Your task to perform on an android device: Open the map Image 0: 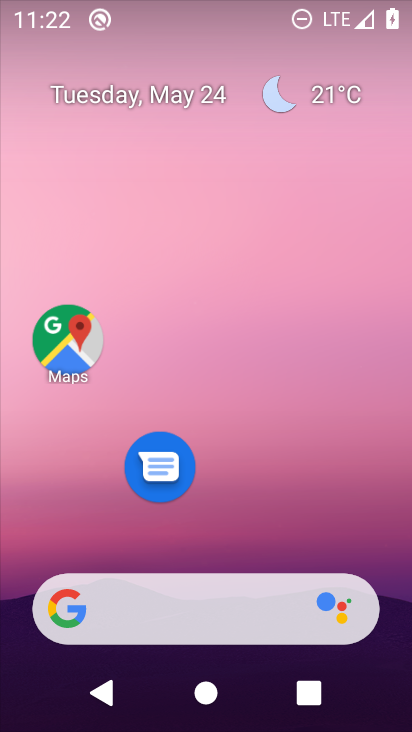
Step 0: drag from (217, 479) to (260, 169)
Your task to perform on an android device: Open the map Image 1: 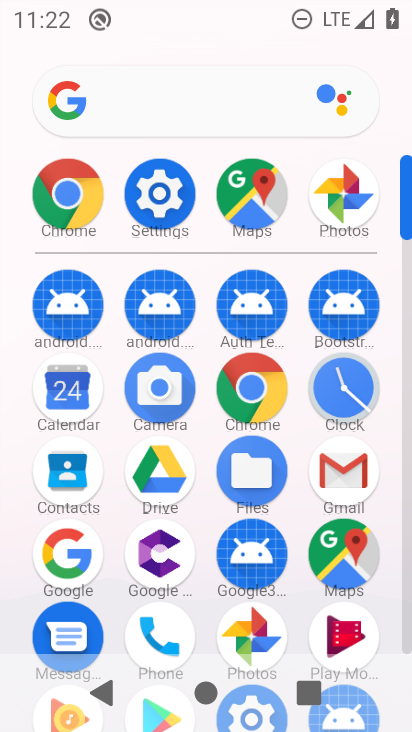
Step 1: click (243, 191)
Your task to perform on an android device: Open the map Image 2: 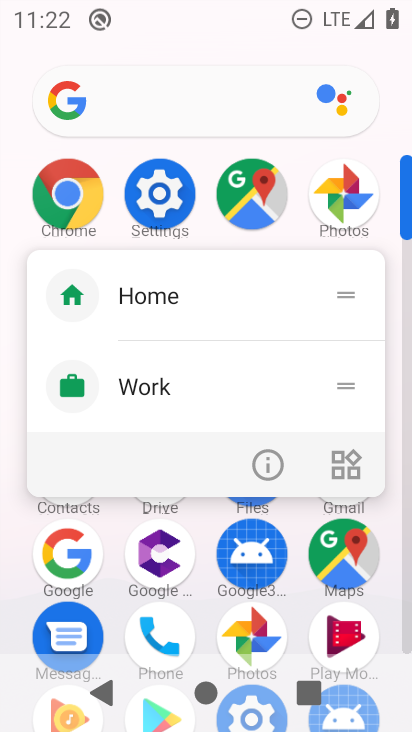
Step 2: click (265, 465)
Your task to perform on an android device: Open the map Image 3: 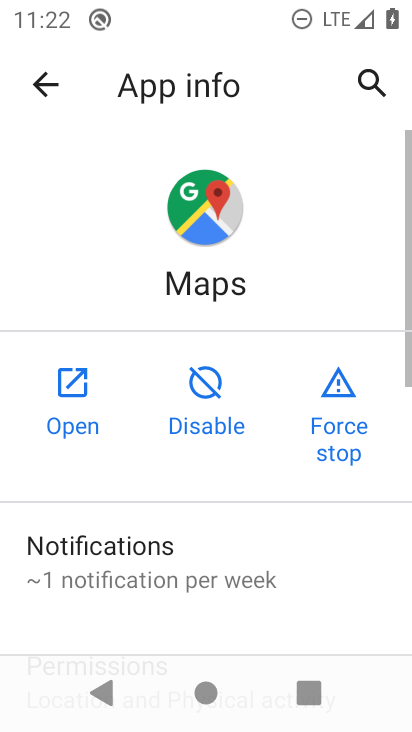
Step 3: click (60, 393)
Your task to perform on an android device: Open the map Image 4: 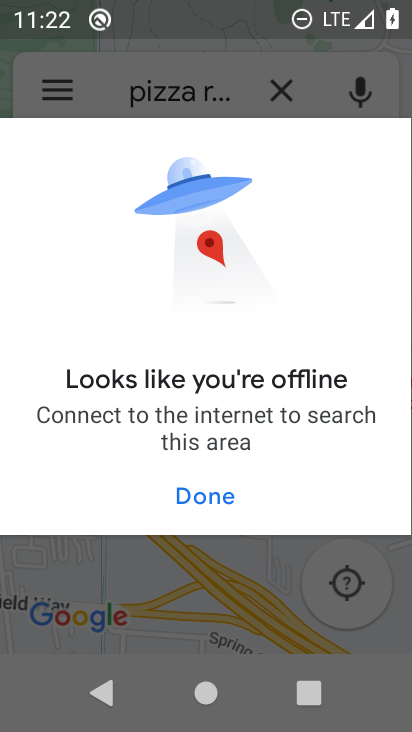
Step 4: click (198, 488)
Your task to perform on an android device: Open the map Image 5: 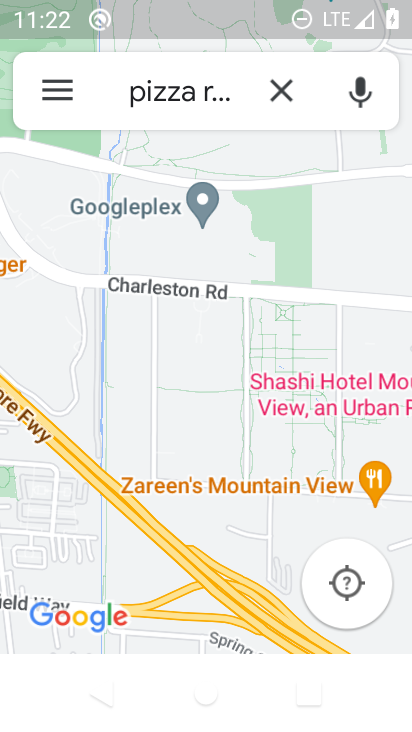
Step 5: task complete